Your task to perform on an android device: Open calendar and show me the fourth week of next month Image 0: 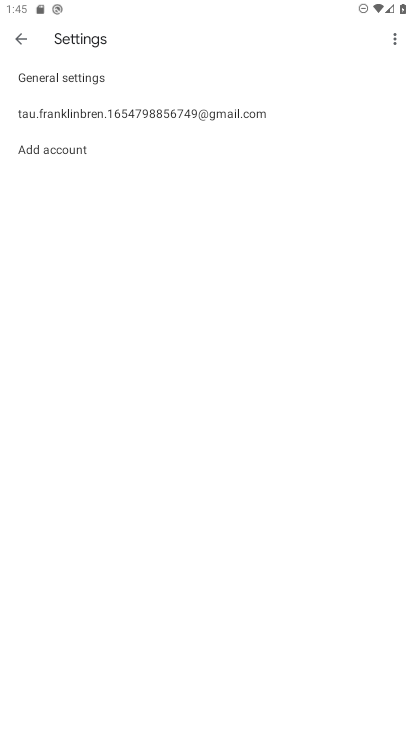
Step 0: press home button
Your task to perform on an android device: Open calendar and show me the fourth week of next month Image 1: 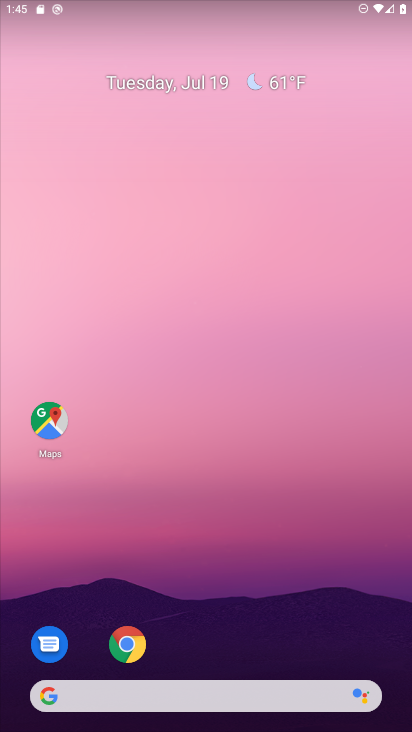
Step 1: drag from (219, 665) to (214, 71)
Your task to perform on an android device: Open calendar and show me the fourth week of next month Image 2: 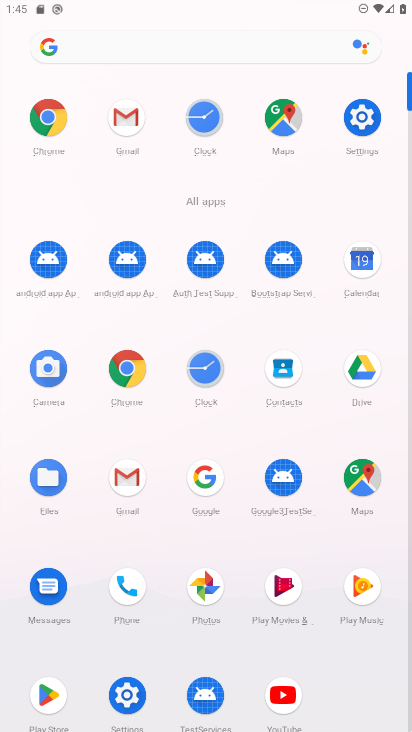
Step 2: click (366, 255)
Your task to perform on an android device: Open calendar and show me the fourth week of next month Image 3: 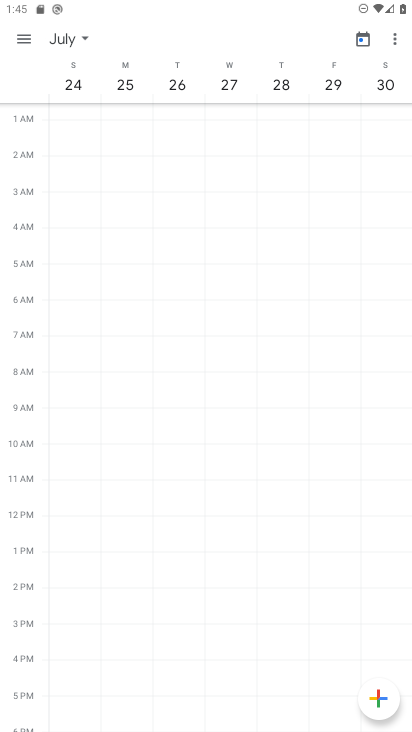
Step 3: task complete